Your task to perform on an android device: When is my next appointment? Image 0: 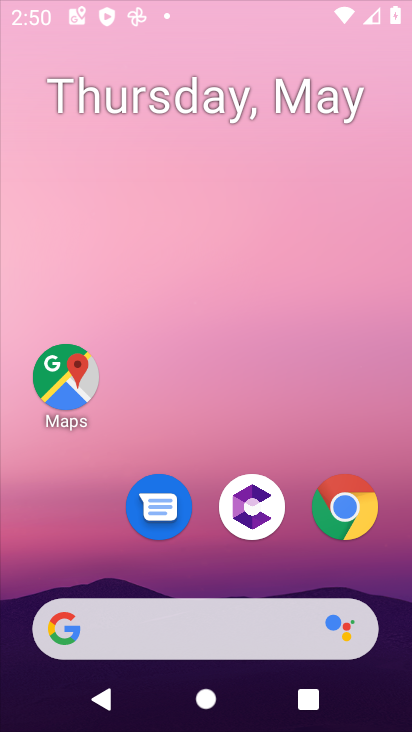
Step 0: press home button
Your task to perform on an android device: When is my next appointment? Image 1: 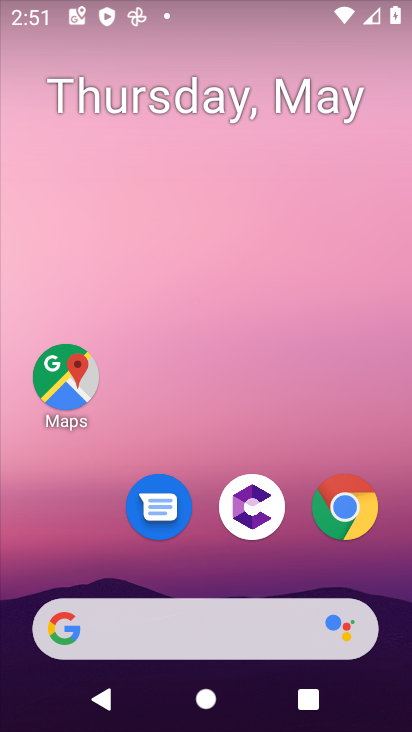
Step 1: drag from (281, 437) to (306, 11)
Your task to perform on an android device: When is my next appointment? Image 2: 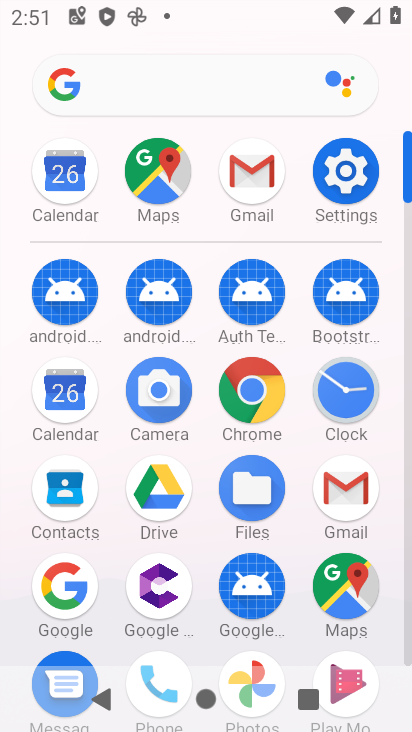
Step 2: click (68, 398)
Your task to perform on an android device: When is my next appointment? Image 3: 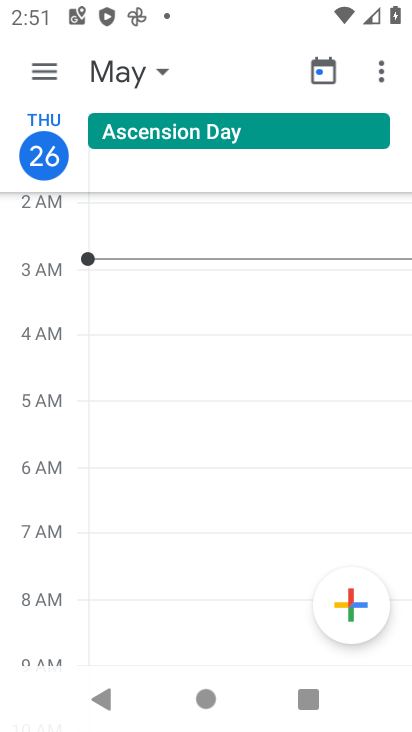
Step 3: click (49, 72)
Your task to perform on an android device: When is my next appointment? Image 4: 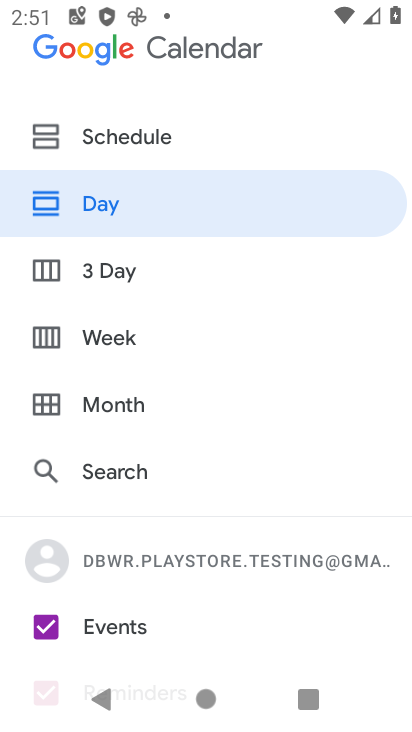
Step 4: click (78, 141)
Your task to perform on an android device: When is my next appointment? Image 5: 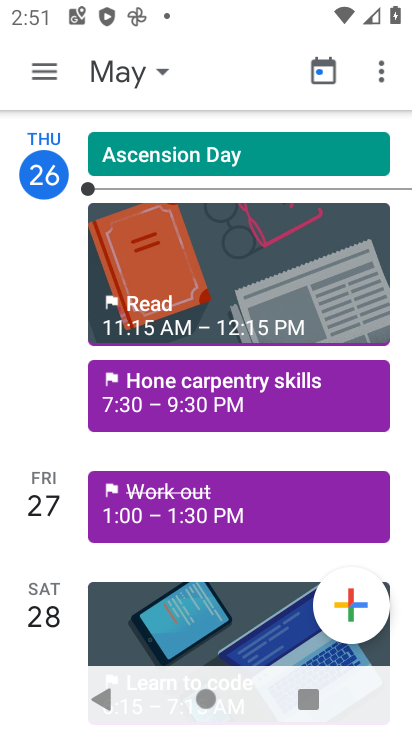
Step 5: task complete